Your task to perform on an android device: Open settings Image 0: 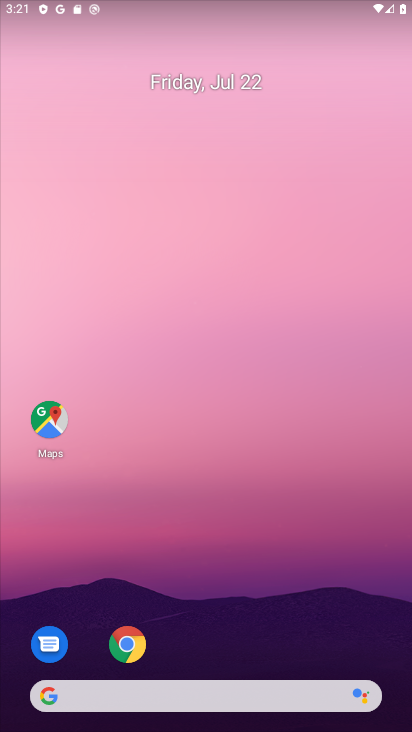
Step 0: drag from (229, 714) to (237, 98)
Your task to perform on an android device: Open settings Image 1: 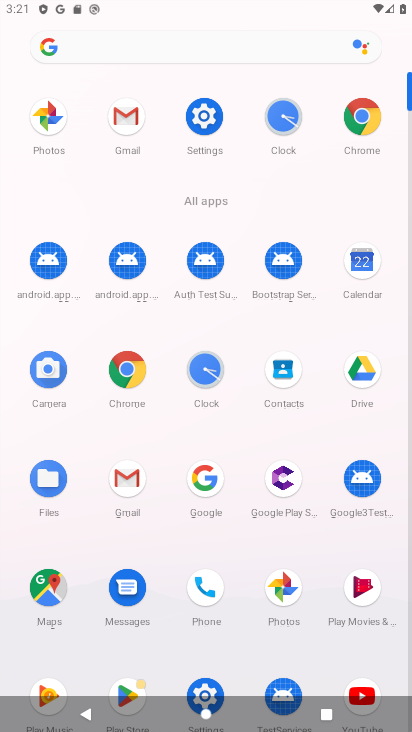
Step 1: click (201, 111)
Your task to perform on an android device: Open settings Image 2: 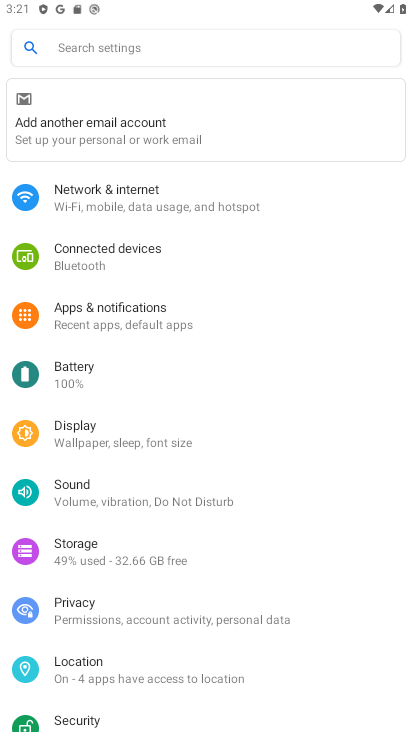
Step 2: task complete